Your task to perform on an android device: Open wifi settings Image 0: 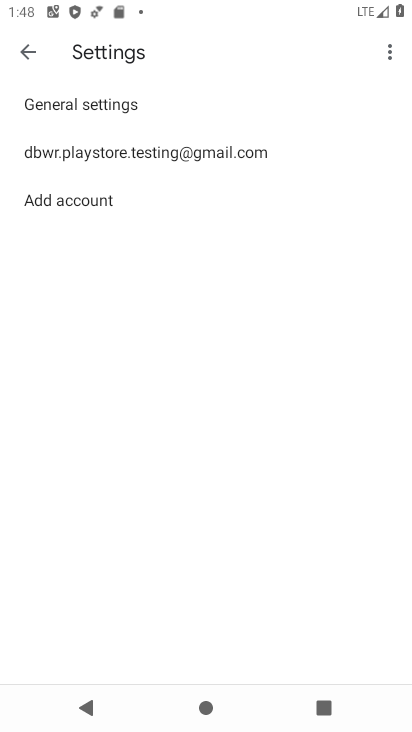
Step 0: press home button
Your task to perform on an android device: Open wifi settings Image 1: 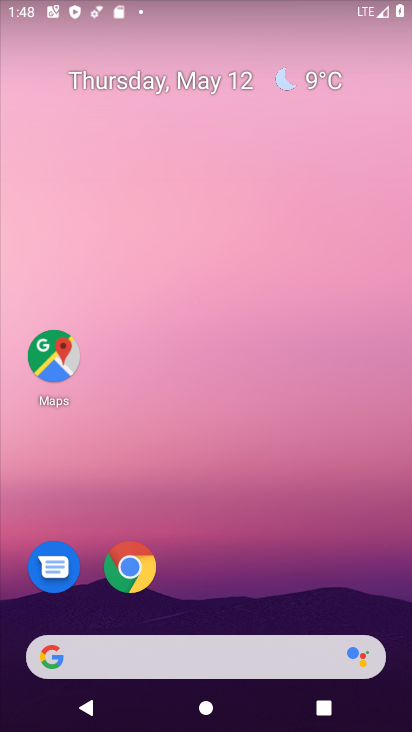
Step 1: drag from (220, 599) to (202, 9)
Your task to perform on an android device: Open wifi settings Image 2: 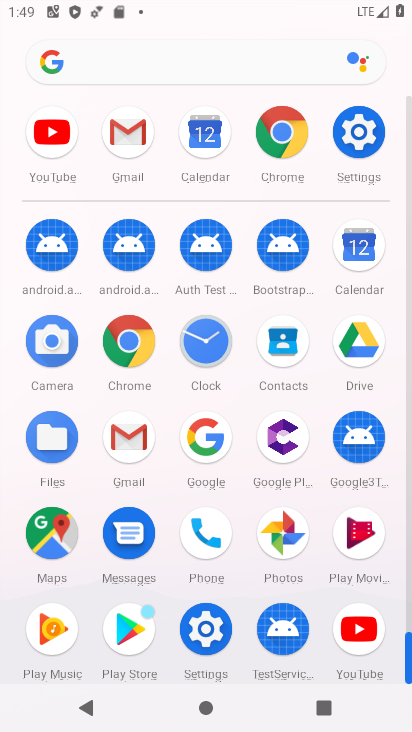
Step 2: click (217, 647)
Your task to perform on an android device: Open wifi settings Image 3: 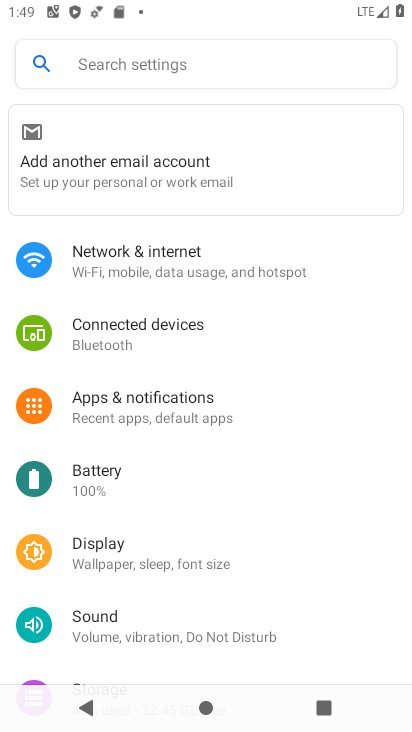
Step 3: click (118, 267)
Your task to perform on an android device: Open wifi settings Image 4: 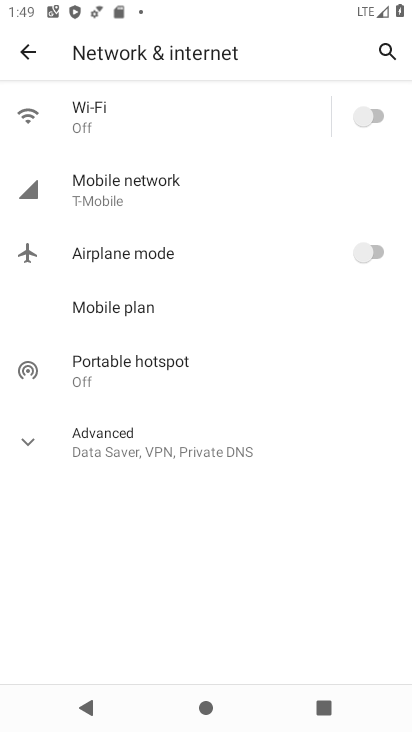
Step 4: click (120, 125)
Your task to perform on an android device: Open wifi settings Image 5: 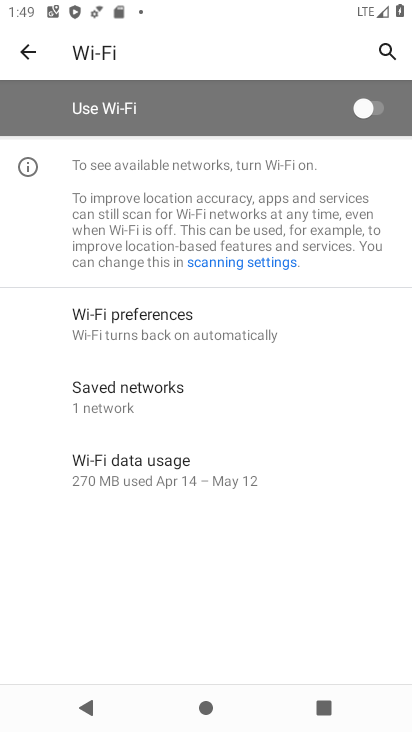
Step 5: task complete